Your task to perform on an android device: open device folders in google photos Image 0: 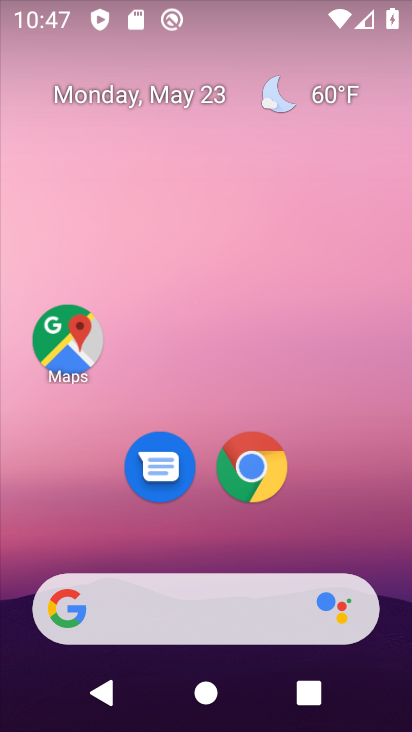
Step 0: drag from (288, 583) to (240, 69)
Your task to perform on an android device: open device folders in google photos Image 1: 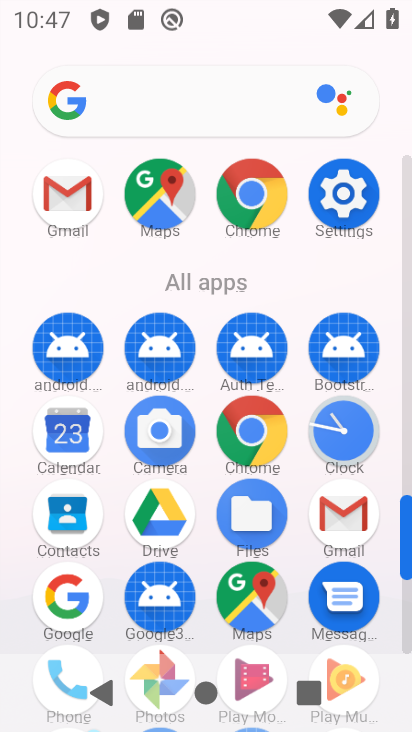
Step 1: drag from (304, 545) to (305, 307)
Your task to perform on an android device: open device folders in google photos Image 2: 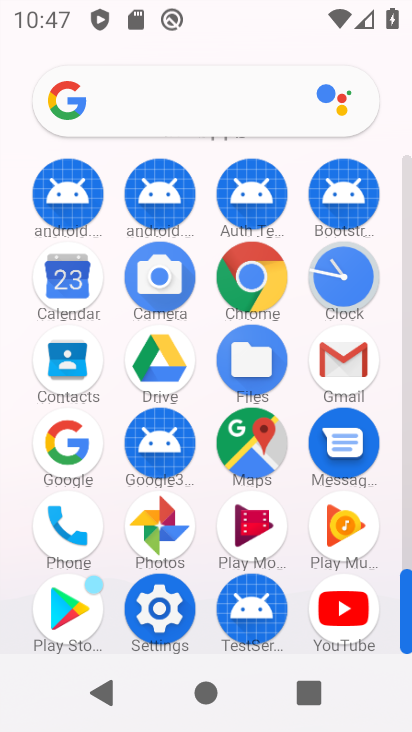
Step 2: click (279, 334)
Your task to perform on an android device: open device folders in google photos Image 3: 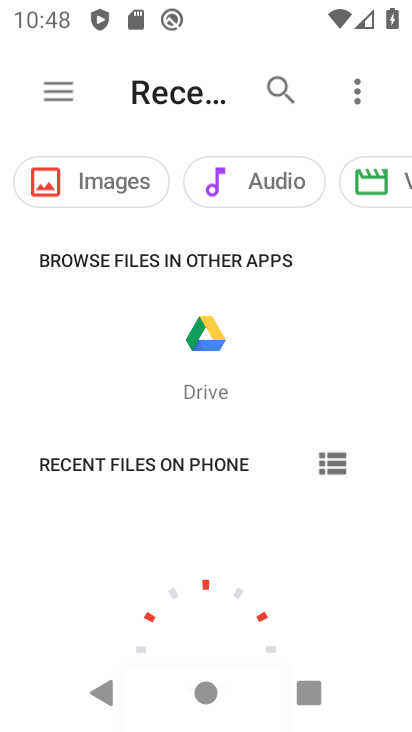
Step 3: press home button
Your task to perform on an android device: open device folders in google photos Image 4: 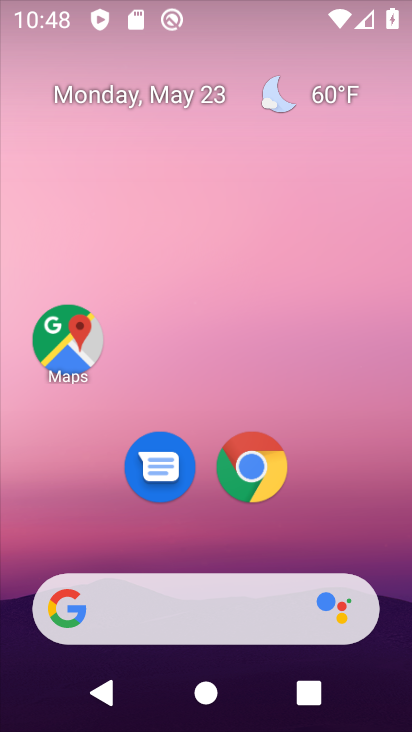
Step 4: drag from (210, 707) to (268, 126)
Your task to perform on an android device: open device folders in google photos Image 5: 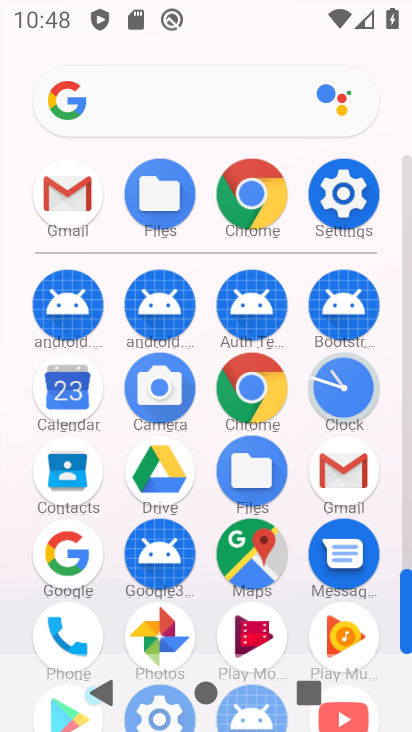
Step 5: click (174, 628)
Your task to perform on an android device: open device folders in google photos Image 6: 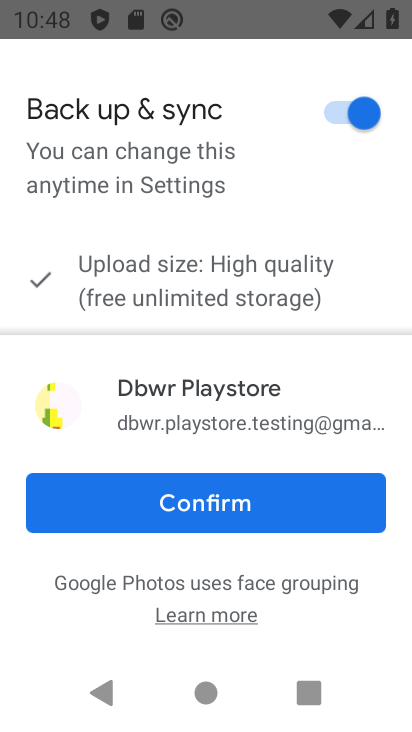
Step 6: click (197, 504)
Your task to perform on an android device: open device folders in google photos Image 7: 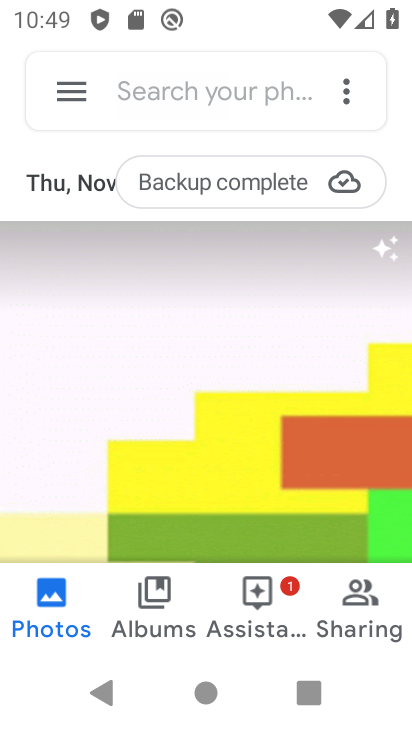
Step 7: click (271, 602)
Your task to perform on an android device: open device folders in google photos Image 8: 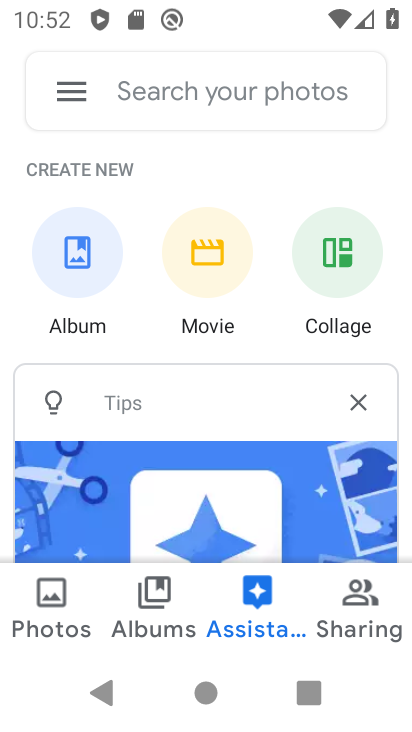
Step 8: drag from (266, 572) to (306, 209)
Your task to perform on an android device: open device folders in google photos Image 9: 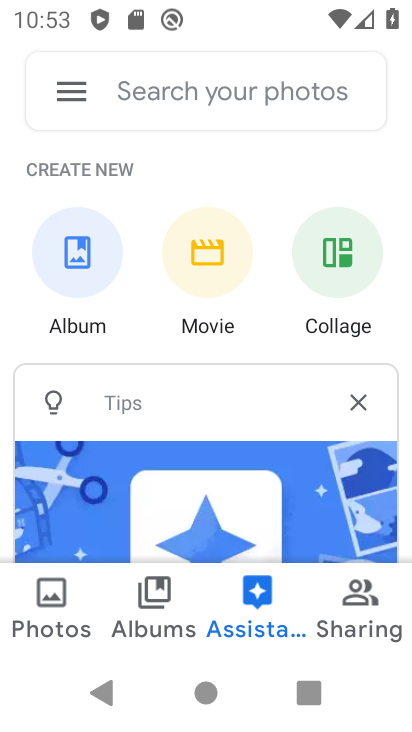
Step 9: click (78, 93)
Your task to perform on an android device: open device folders in google photos Image 10: 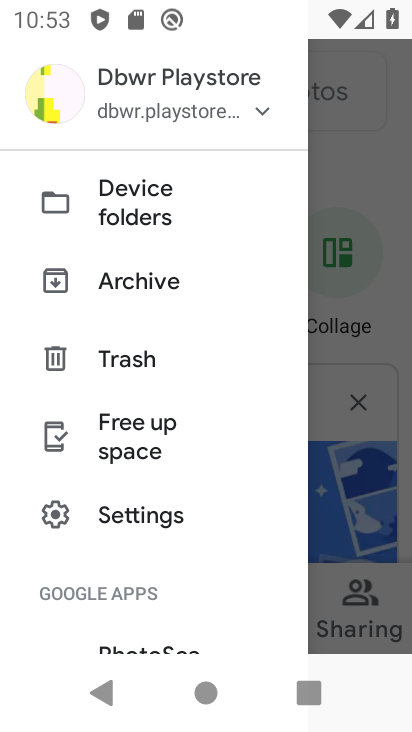
Step 10: click (181, 204)
Your task to perform on an android device: open device folders in google photos Image 11: 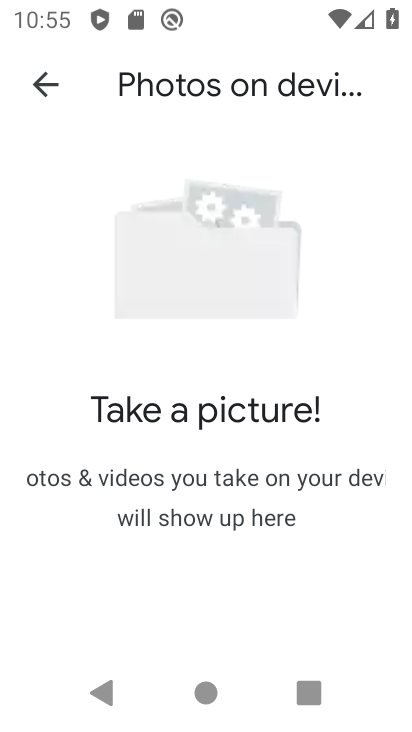
Step 11: press home button
Your task to perform on an android device: open device folders in google photos Image 12: 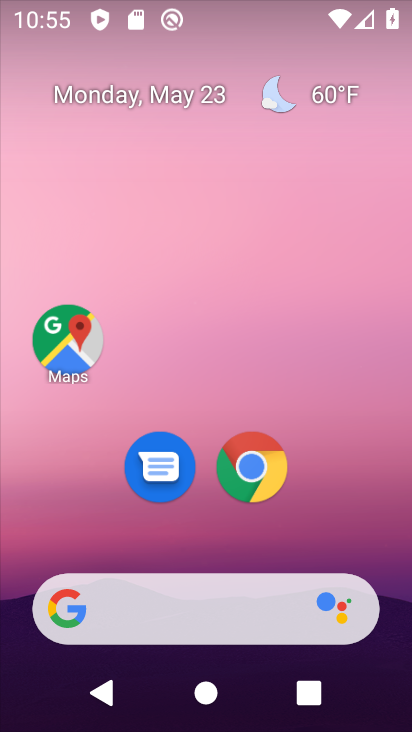
Step 12: drag from (219, 679) to (149, 43)
Your task to perform on an android device: open device folders in google photos Image 13: 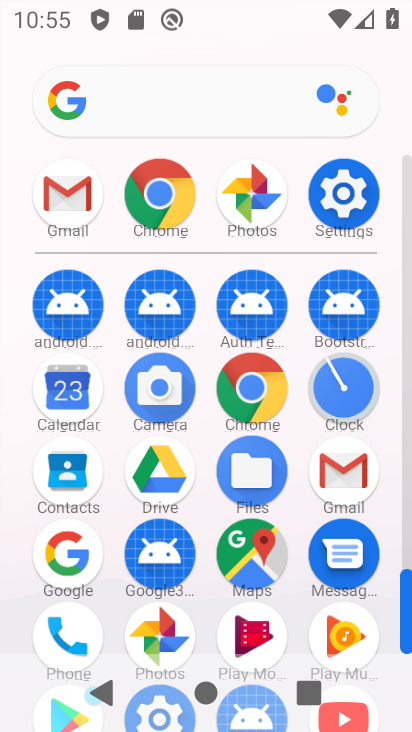
Step 13: click (168, 639)
Your task to perform on an android device: open device folders in google photos Image 14: 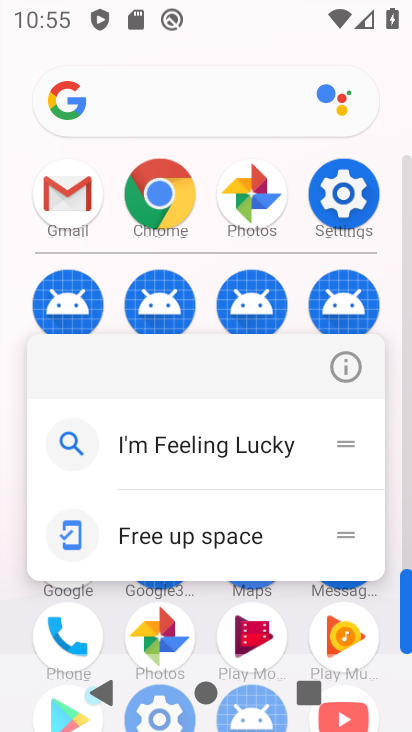
Step 14: drag from (171, 589) to (189, 517)
Your task to perform on an android device: open device folders in google photos Image 15: 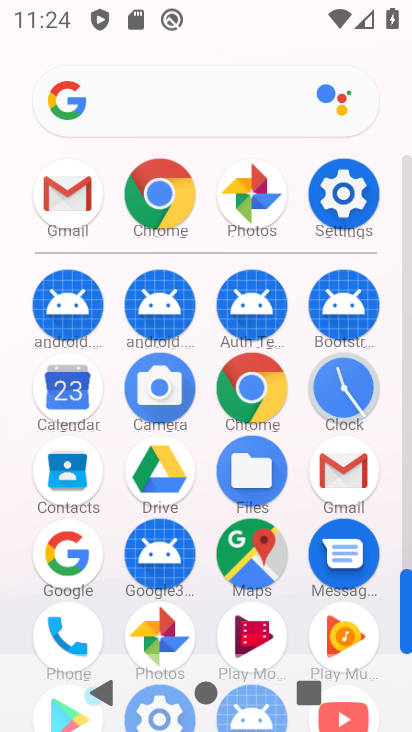
Step 15: click (179, 641)
Your task to perform on an android device: open device folders in google photos Image 16: 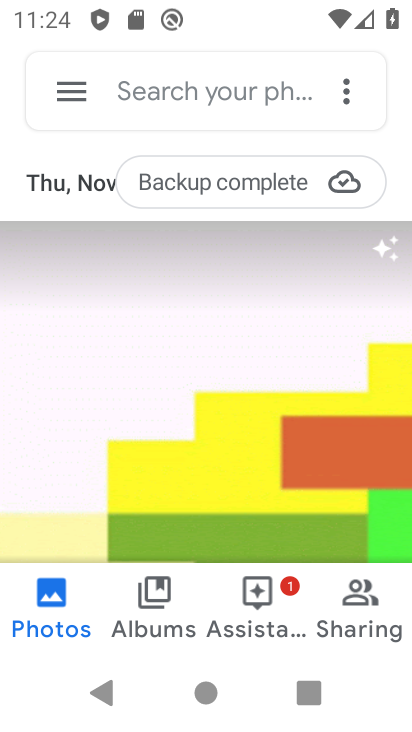
Step 16: click (81, 80)
Your task to perform on an android device: open device folders in google photos Image 17: 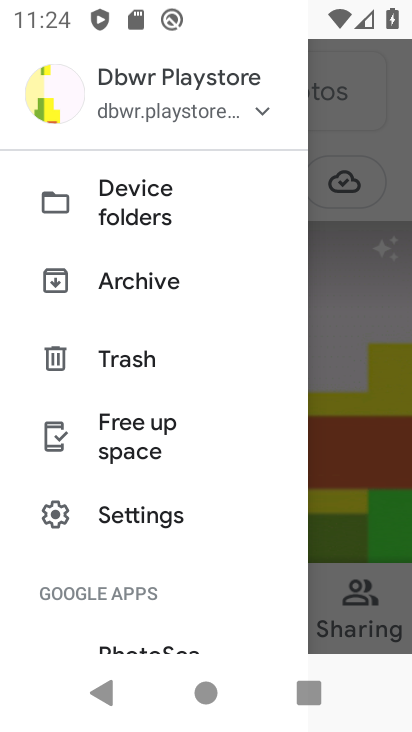
Step 17: click (182, 189)
Your task to perform on an android device: open device folders in google photos Image 18: 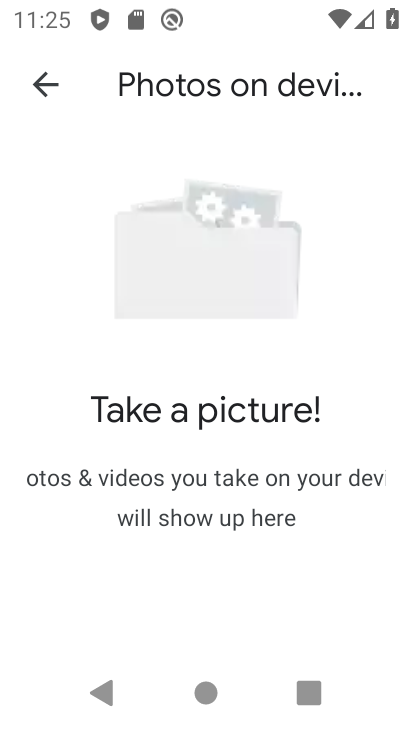
Step 18: task complete